Your task to perform on an android device: Open calendar and show me the fourth week of next month Image 0: 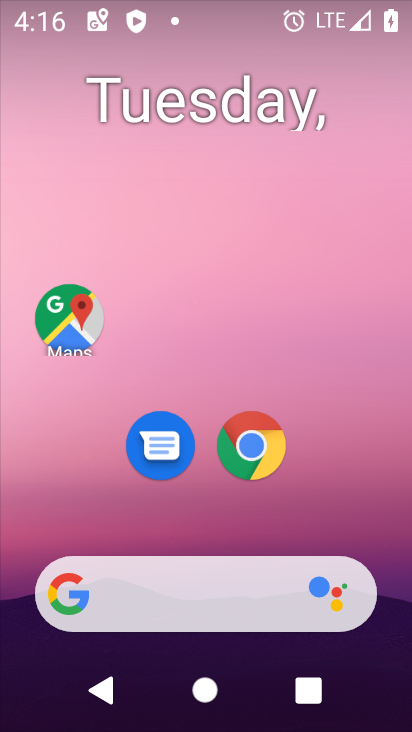
Step 0: drag from (354, 502) to (378, 89)
Your task to perform on an android device: Open calendar and show me the fourth week of next month Image 1: 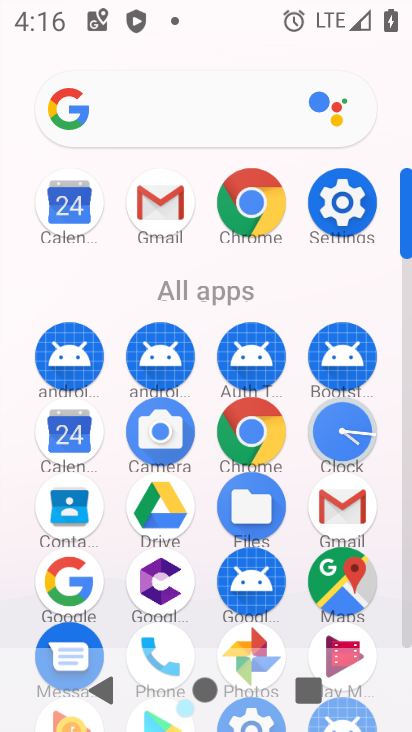
Step 1: click (71, 425)
Your task to perform on an android device: Open calendar and show me the fourth week of next month Image 2: 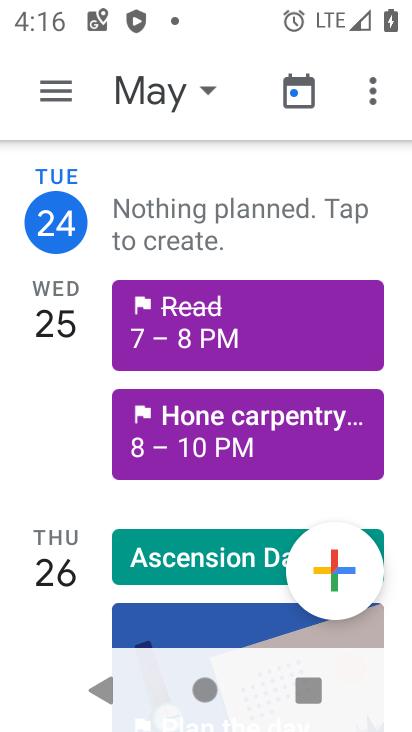
Step 2: click (202, 92)
Your task to perform on an android device: Open calendar and show me the fourth week of next month Image 3: 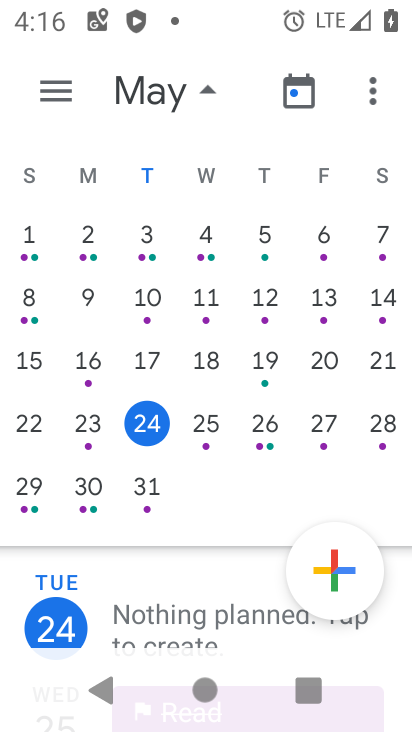
Step 3: drag from (353, 393) to (20, 322)
Your task to perform on an android device: Open calendar and show me the fourth week of next month Image 4: 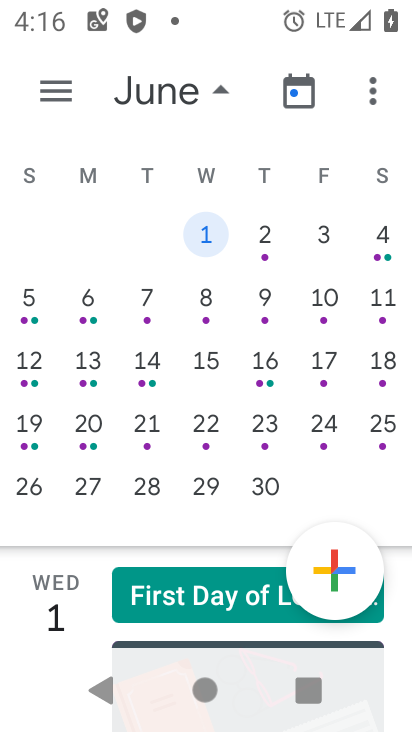
Step 4: click (156, 491)
Your task to perform on an android device: Open calendar and show me the fourth week of next month Image 5: 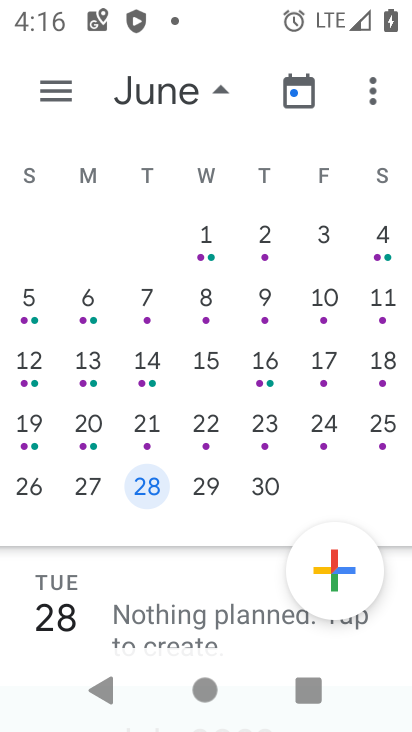
Step 5: click (96, 477)
Your task to perform on an android device: Open calendar and show me the fourth week of next month Image 6: 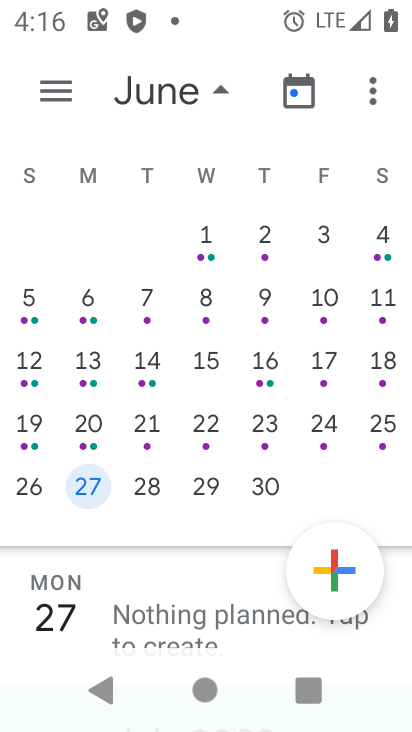
Step 6: click (61, 81)
Your task to perform on an android device: Open calendar and show me the fourth week of next month Image 7: 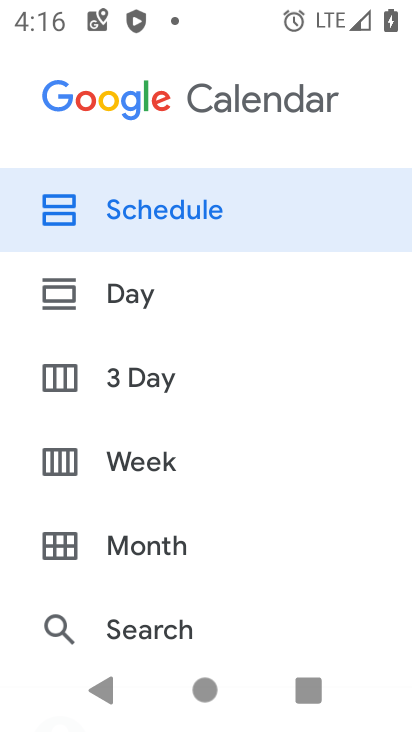
Step 7: click (170, 464)
Your task to perform on an android device: Open calendar and show me the fourth week of next month Image 8: 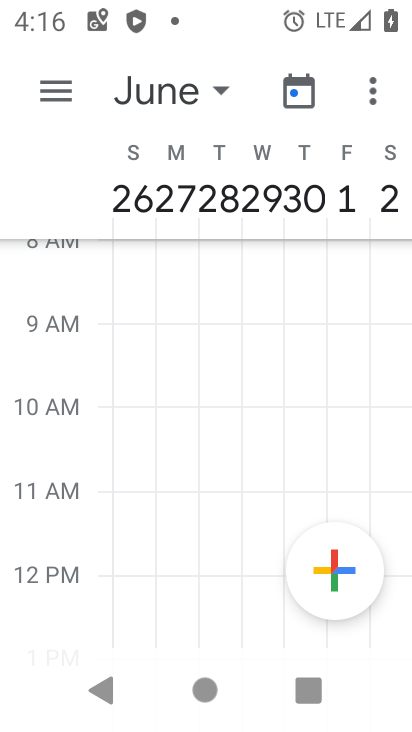
Step 8: task complete